Your task to perform on an android device: toggle show notifications on the lock screen Image 0: 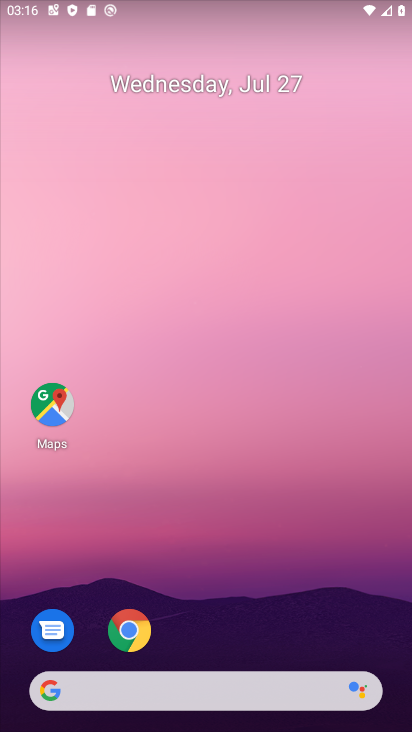
Step 0: drag from (327, 646) to (266, 188)
Your task to perform on an android device: toggle show notifications on the lock screen Image 1: 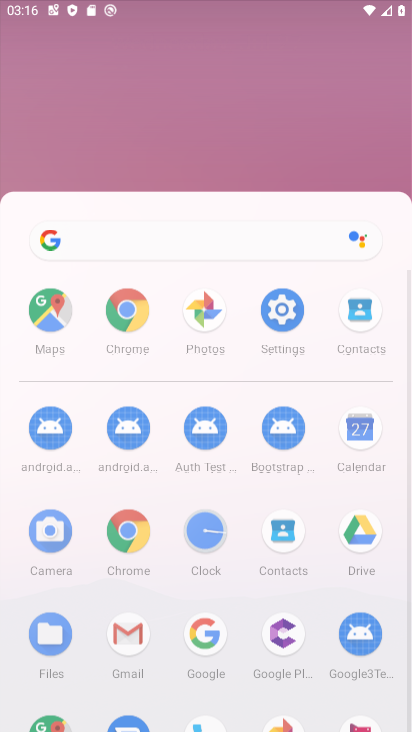
Step 1: drag from (275, 541) to (166, 210)
Your task to perform on an android device: toggle show notifications on the lock screen Image 2: 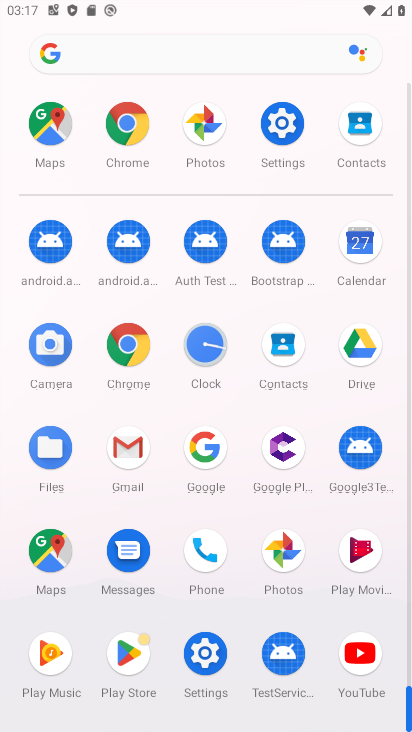
Step 2: click (293, 131)
Your task to perform on an android device: toggle show notifications on the lock screen Image 3: 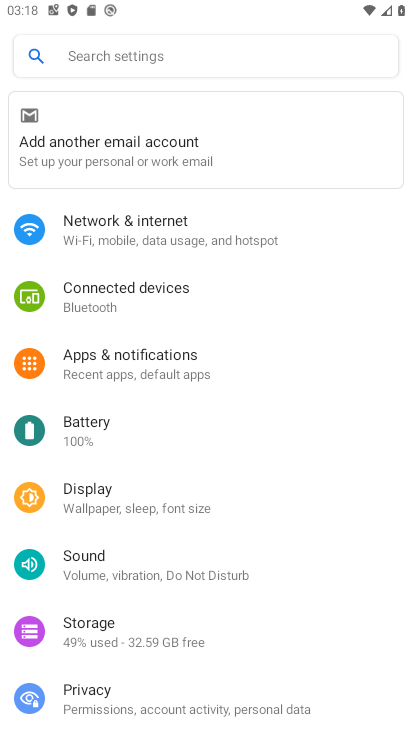
Step 3: click (115, 361)
Your task to perform on an android device: toggle show notifications on the lock screen Image 4: 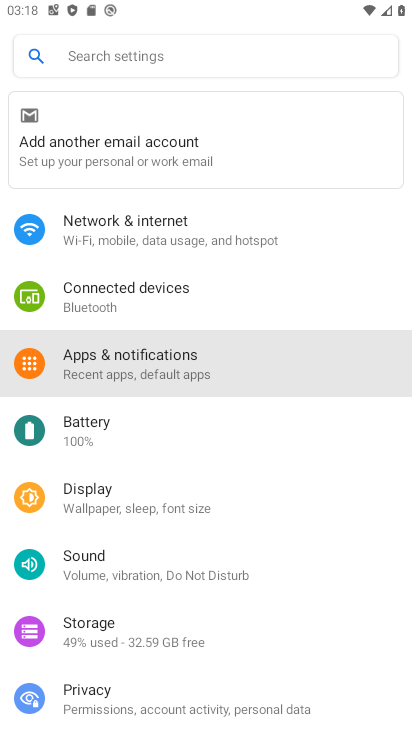
Step 4: click (118, 364)
Your task to perform on an android device: toggle show notifications on the lock screen Image 5: 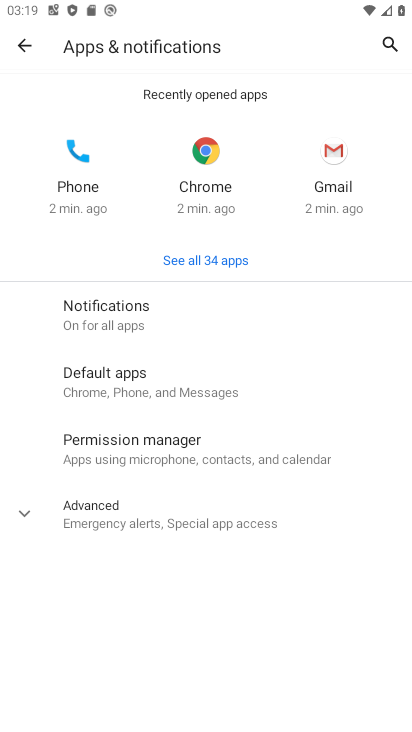
Step 5: click (82, 303)
Your task to perform on an android device: toggle show notifications on the lock screen Image 6: 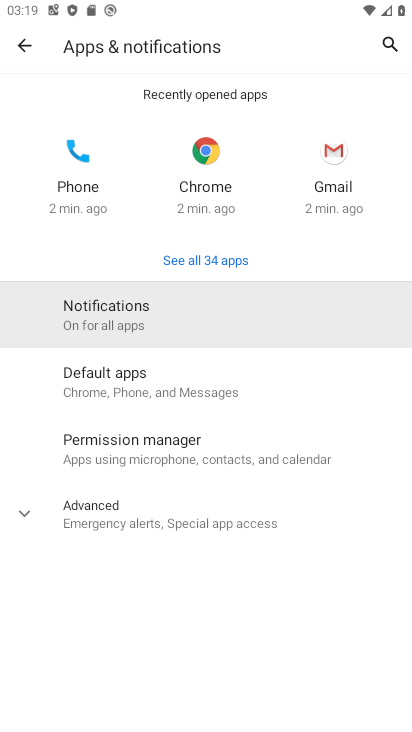
Step 6: click (83, 304)
Your task to perform on an android device: toggle show notifications on the lock screen Image 7: 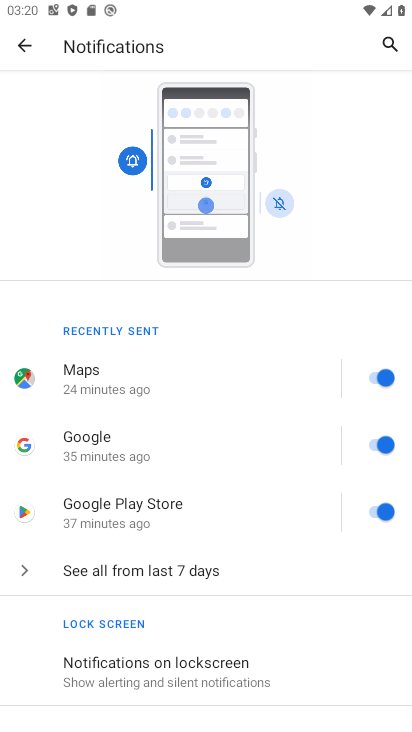
Step 7: click (142, 660)
Your task to perform on an android device: toggle show notifications on the lock screen Image 8: 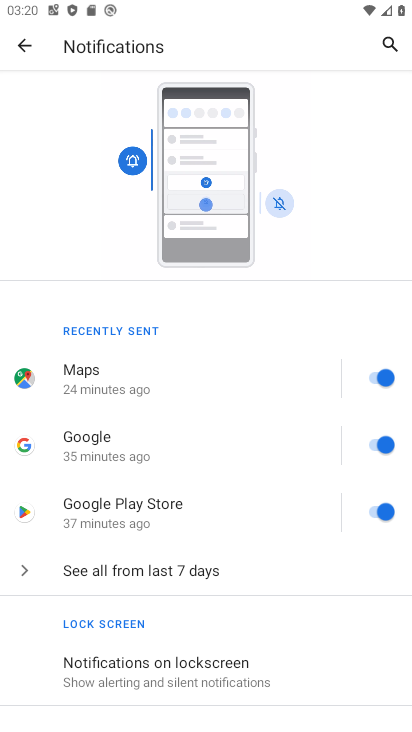
Step 8: click (142, 660)
Your task to perform on an android device: toggle show notifications on the lock screen Image 9: 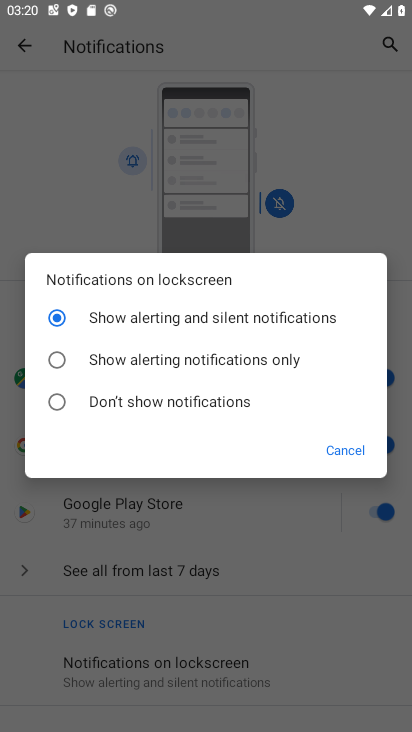
Step 9: click (142, 660)
Your task to perform on an android device: toggle show notifications on the lock screen Image 10: 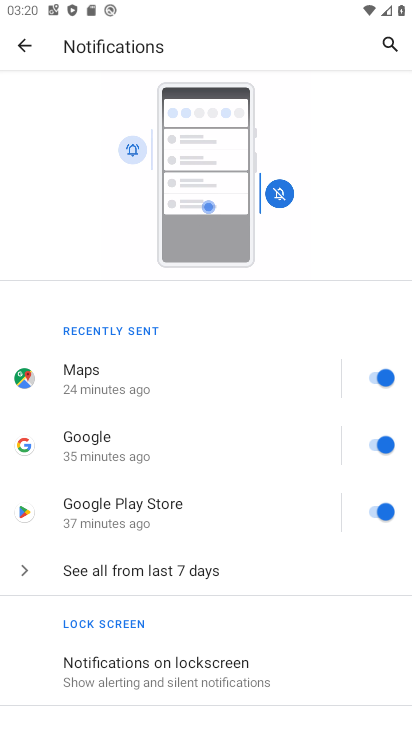
Step 10: click (137, 662)
Your task to perform on an android device: toggle show notifications on the lock screen Image 11: 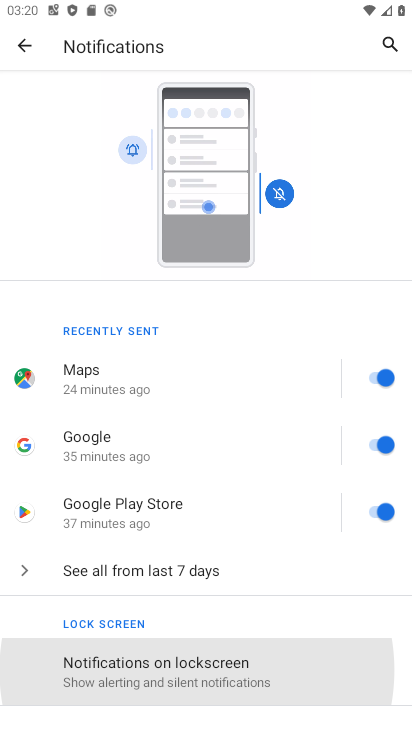
Step 11: click (137, 662)
Your task to perform on an android device: toggle show notifications on the lock screen Image 12: 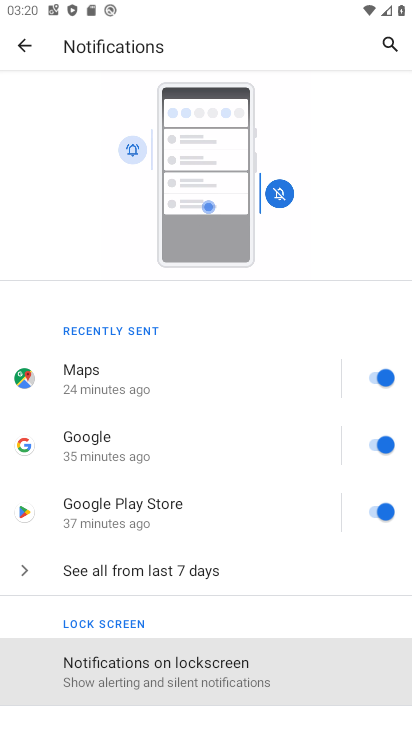
Step 12: click (141, 659)
Your task to perform on an android device: toggle show notifications on the lock screen Image 13: 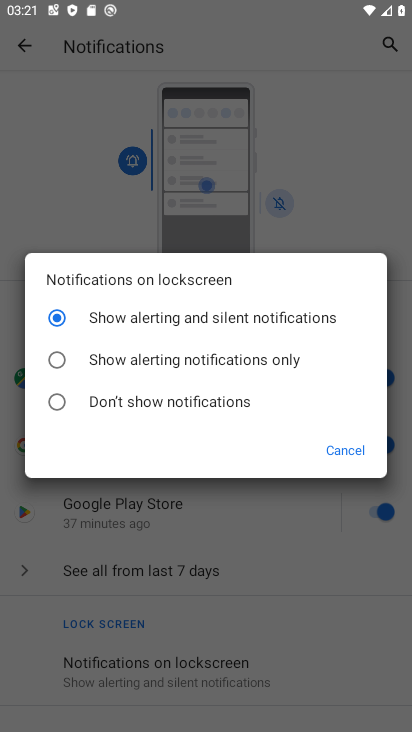
Step 13: click (317, 577)
Your task to perform on an android device: toggle show notifications on the lock screen Image 14: 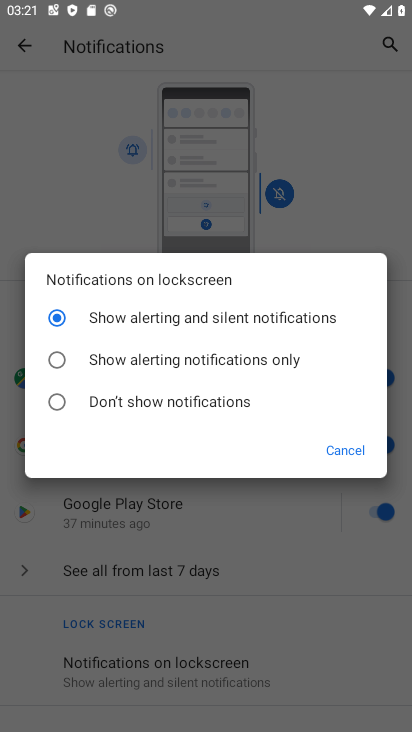
Step 14: click (59, 367)
Your task to perform on an android device: toggle show notifications on the lock screen Image 15: 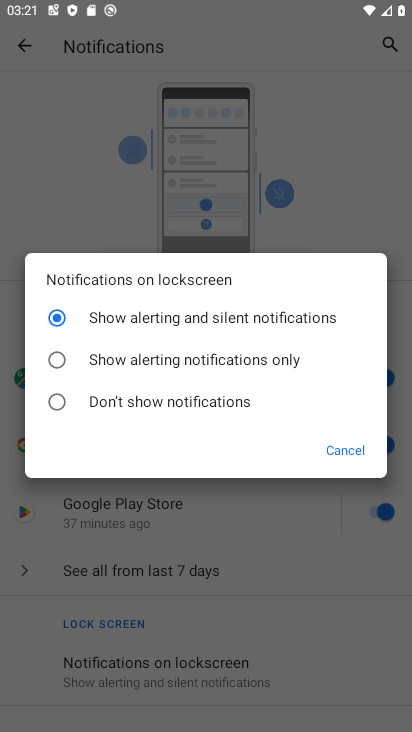
Step 15: click (52, 370)
Your task to perform on an android device: toggle show notifications on the lock screen Image 16: 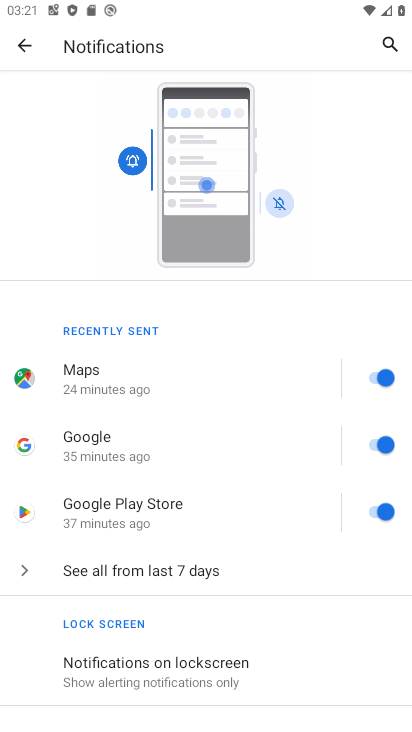
Step 16: task complete